Your task to perform on an android device: allow notifications from all sites in the chrome app Image 0: 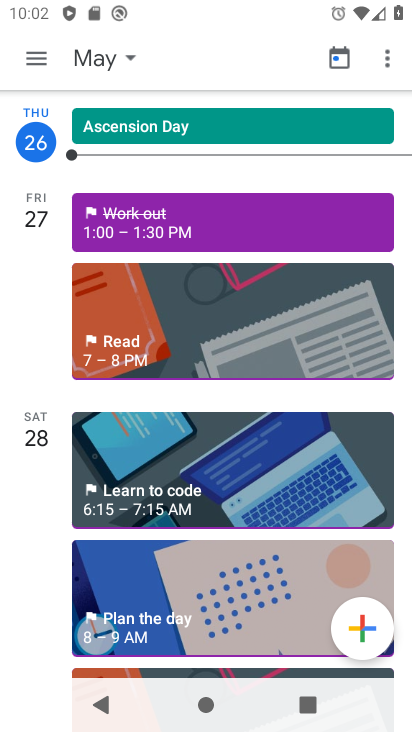
Step 0: press home button
Your task to perform on an android device: allow notifications from all sites in the chrome app Image 1: 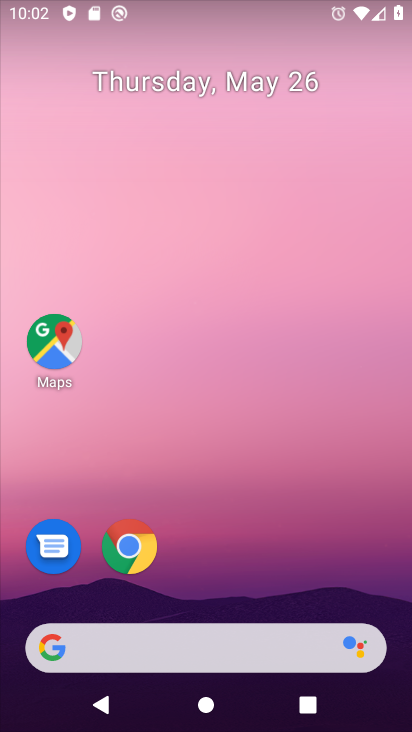
Step 1: click (132, 545)
Your task to perform on an android device: allow notifications from all sites in the chrome app Image 2: 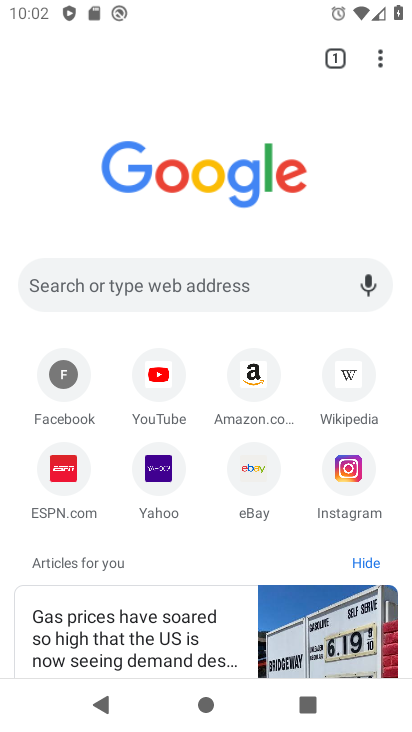
Step 2: click (380, 58)
Your task to perform on an android device: allow notifications from all sites in the chrome app Image 3: 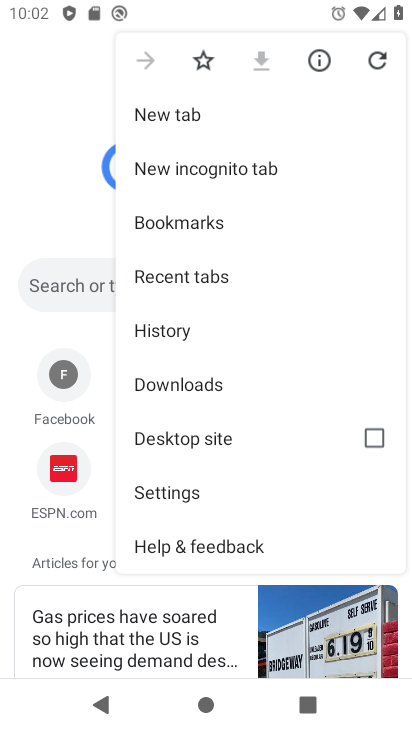
Step 3: click (161, 497)
Your task to perform on an android device: allow notifications from all sites in the chrome app Image 4: 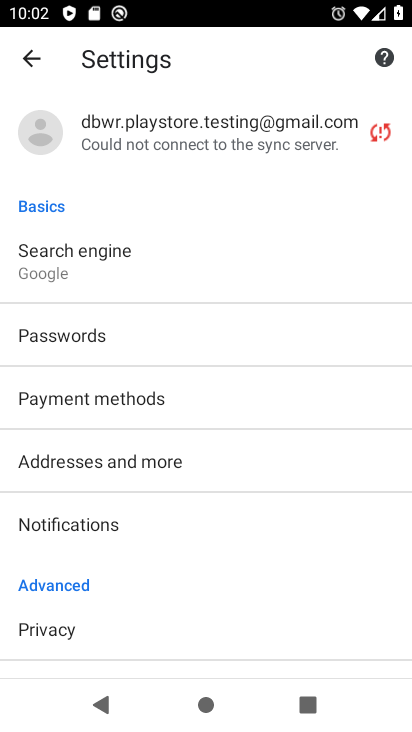
Step 4: drag from (146, 548) to (209, 457)
Your task to perform on an android device: allow notifications from all sites in the chrome app Image 5: 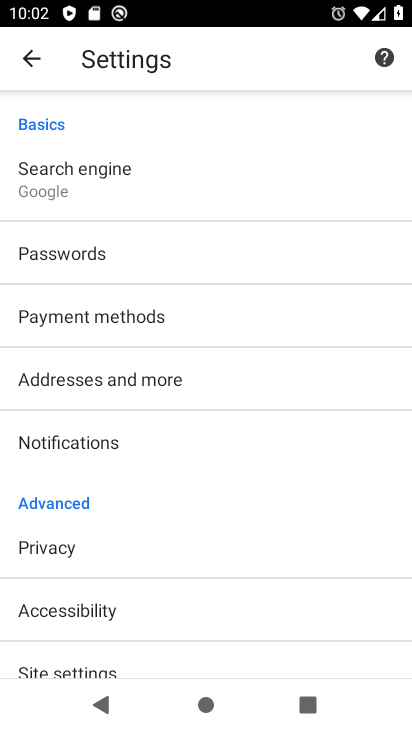
Step 5: drag from (128, 540) to (207, 456)
Your task to perform on an android device: allow notifications from all sites in the chrome app Image 6: 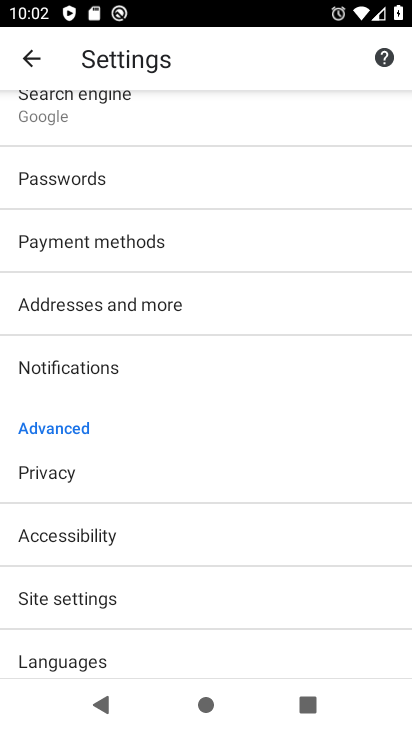
Step 6: click (92, 595)
Your task to perform on an android device: allow notifications from all sites in the chrome app Image 7: 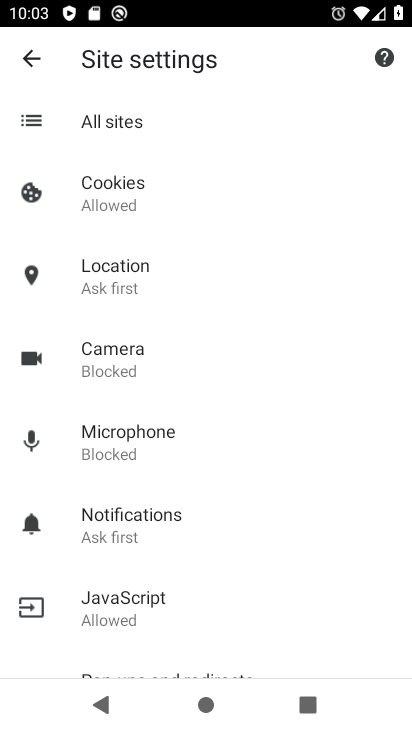
Step 7: click (137, 508)
Your task to perform on an android device: allow notifications from all sites in the chrome app Image 8: 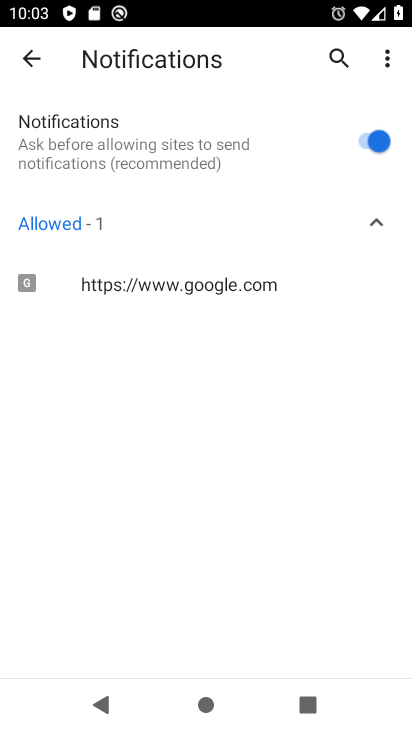
Step 8: task complete